Your task to perform on an android device: Clear all items from cart on target. Search for logitech g903 on target, select the first entry, add it to the cart, then select checkout. Image 0: 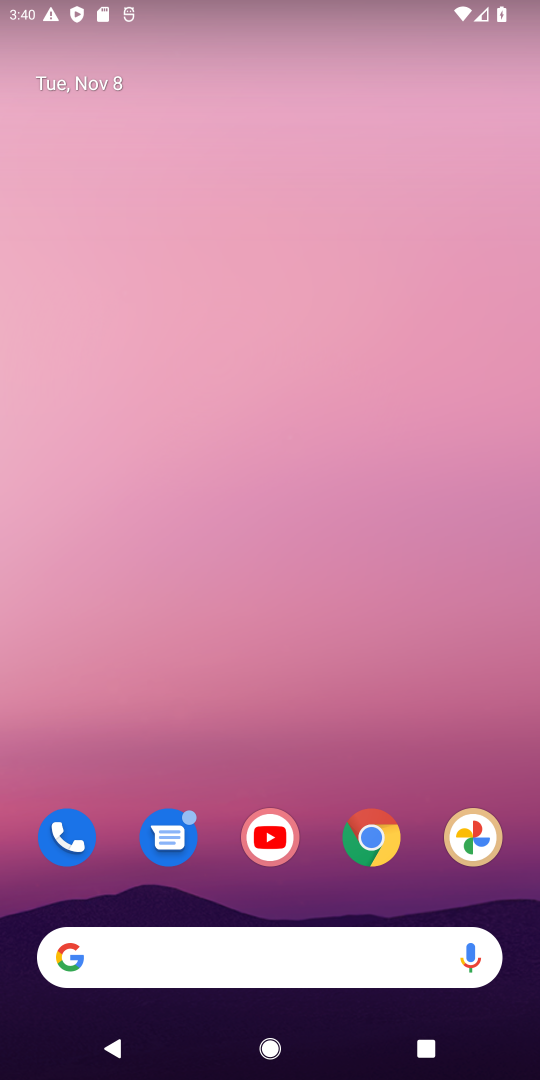
Step 0: click (387, 840)
Your task to perform on an android device: Clear all items from cart on target. Search for logitech g903 on target, select the first entry, add it to the cart, then select checkout. Image 1: 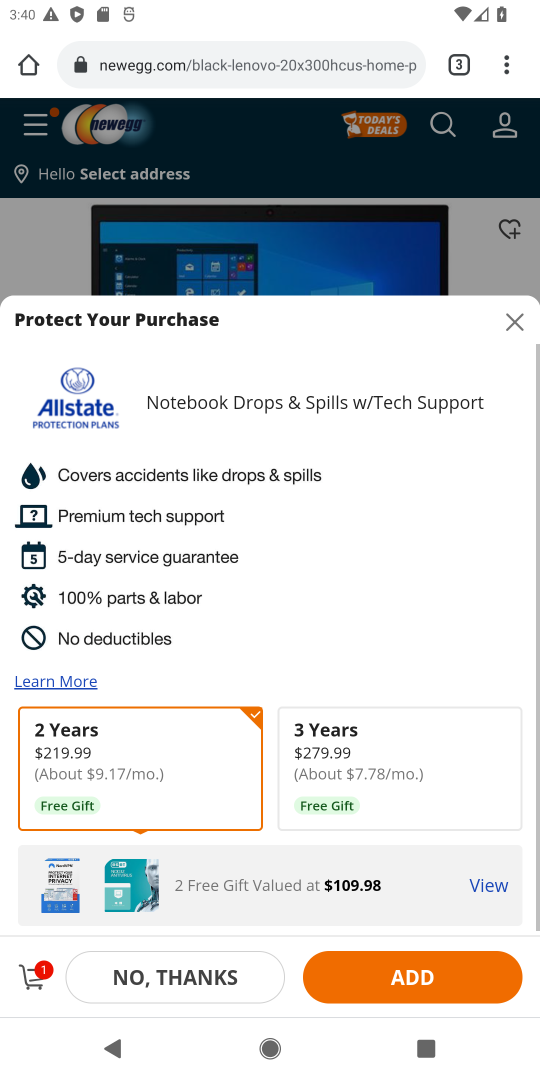
Step 1: click (461, 67)
Your task to perform on an android device: Clear all items from cart on target. Search for logitech g903 on target, select the first entry, add it to the cart, then select checkout. Image 2: 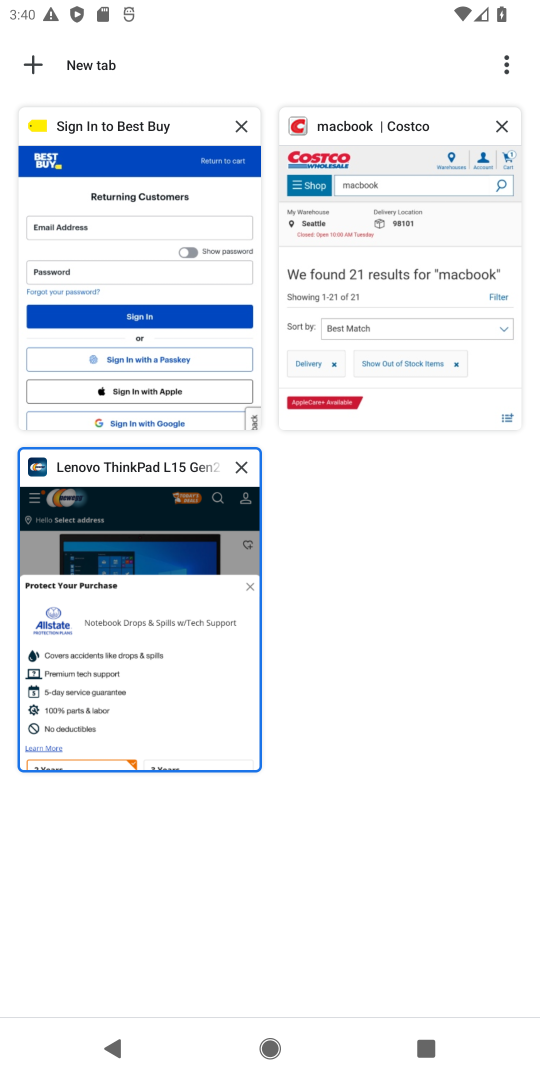
Step 2: click (19, 67)
Your task to perform on an android device: Clear all items from cart on target. Search for logitech g903 on target, select the first entry, add it to the cart, then select checkout. Image 3: 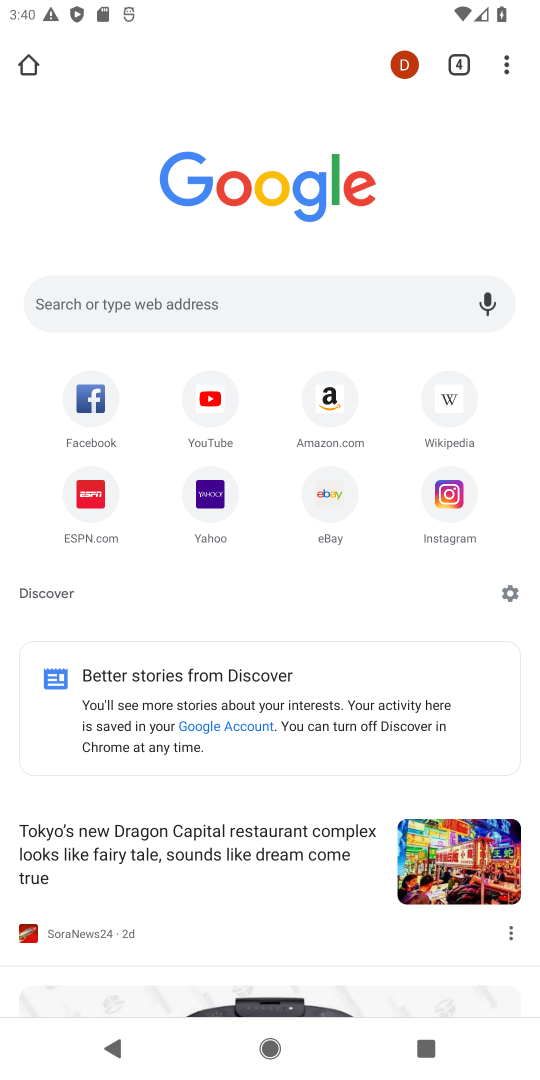
Step 3: click (149, 296)
Your task to perform on an android device: Clear all items from cart on target. Search for logitech g903 on target, select the first entry, add it to the cart, then select checkout. Image 4: 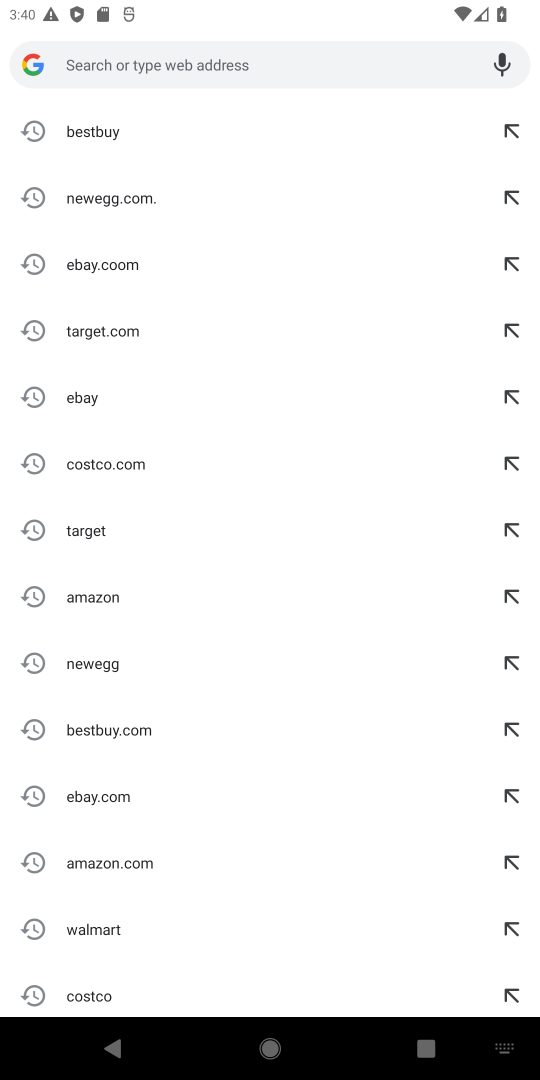
Step 4: click (110, 332)
Your task to perform on an android device: Clear all items from cart on target. Search for logitech g903 on target, select the first entry, add it to the cart, then select checkout. Image 5: 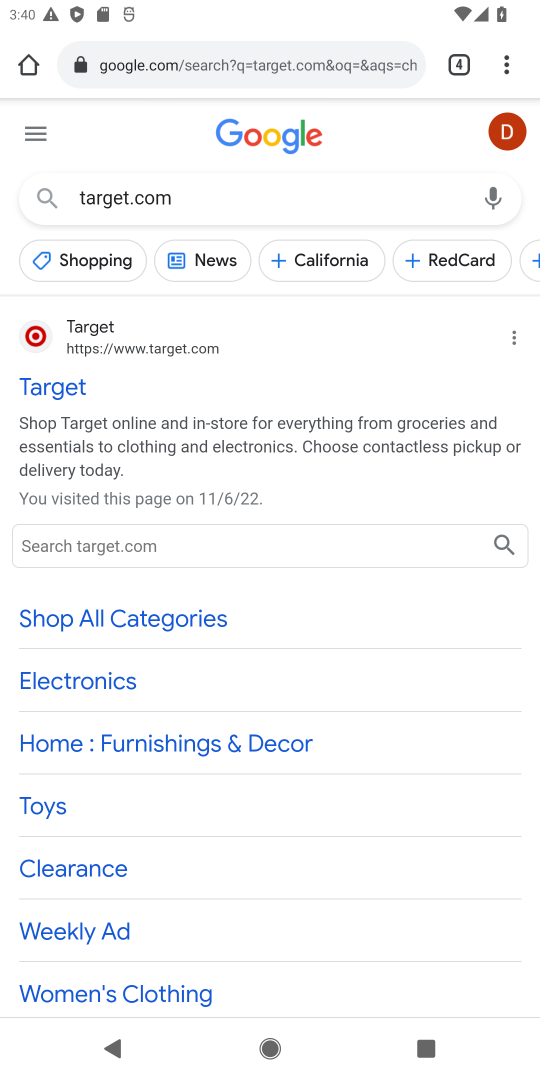
Step 5: click (76, 535)
Your task to perform on an android device: Clear all items from cart on target. Search for logitech g903 on target, select the first entry, add it to the cart, then select checkout. Image 6: 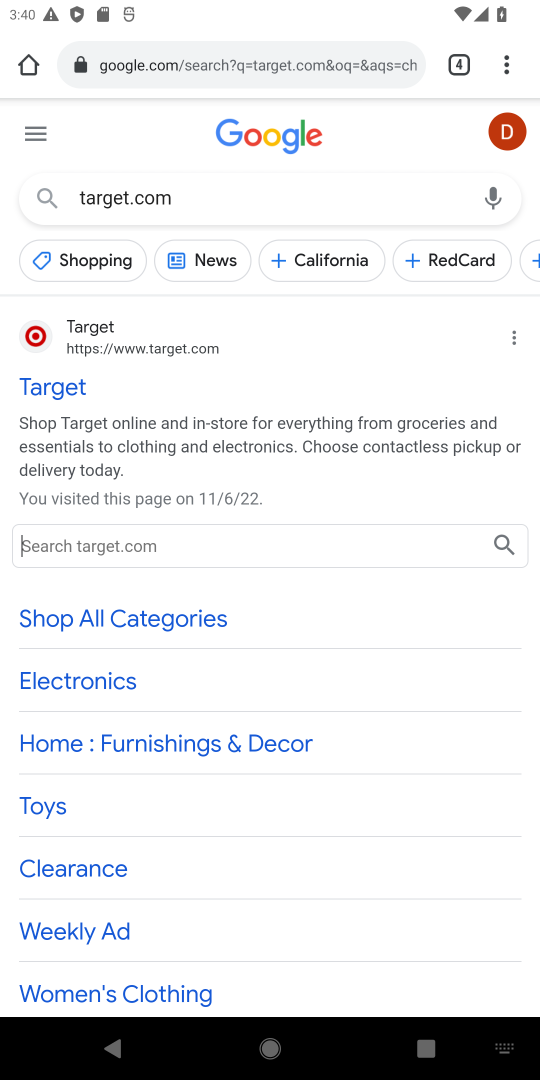
Step 6: type "logitech g903"
Your task to perform on an android device: Clear all items from cart on target. Search for logitech g903 on target, select the first entry, add it to the cart, then select checkout. Image 7: 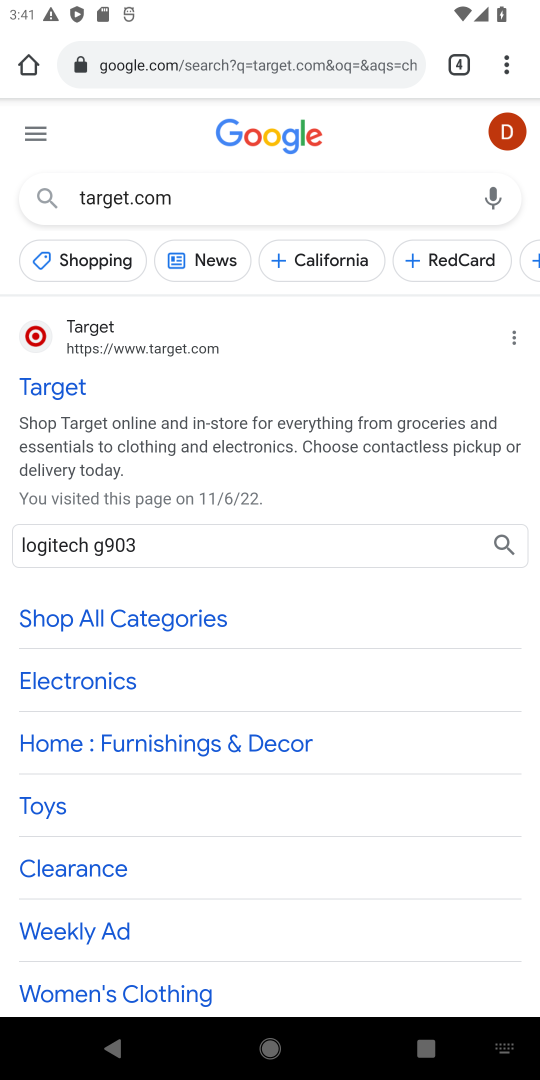
Step 7: click (498, 541)
Your task to perform on an android device: Clear all items from cart on target. Search for logitech g903 on target, select the first entry, add it to the cart, then select checkout. Image 8: 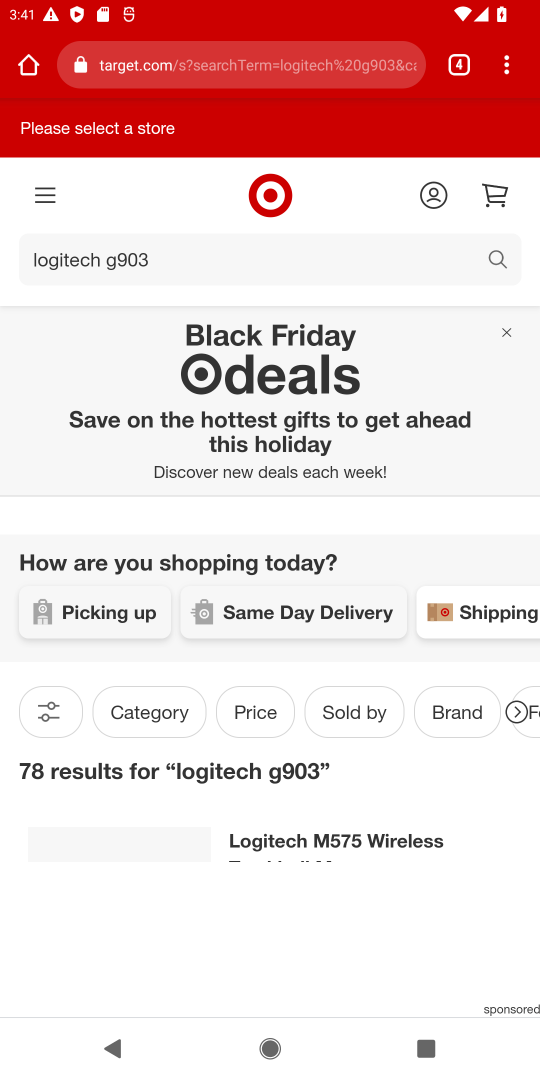
Step 8: drag from (381, 737) to (440, 383)
Your task to perform on an android device: Clear all items from cart on target. Search for logitech g903 on target, select the first entry, add it to the cart, then select checkout. Image 9: 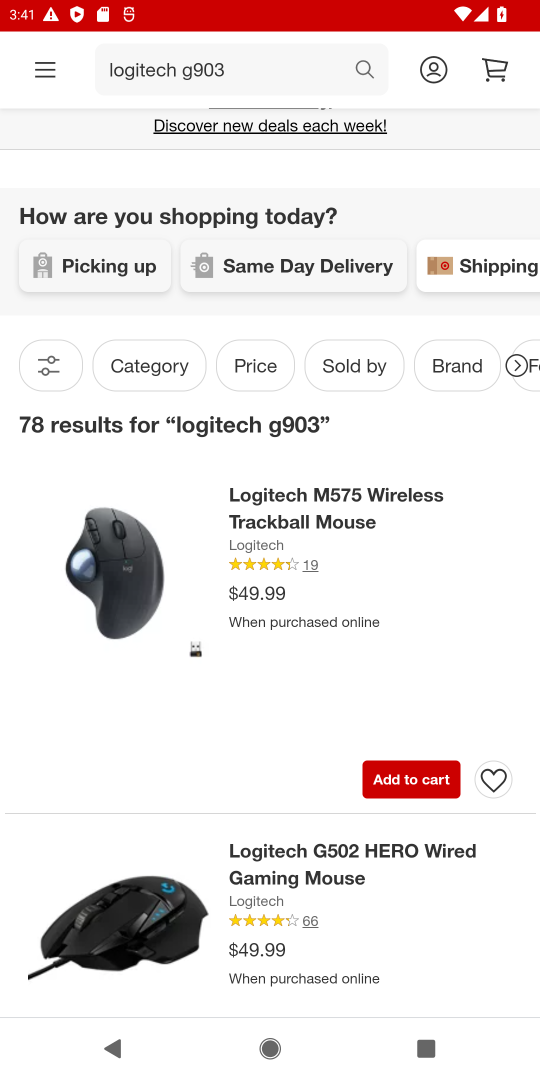
Step 9: click (419, 774)
Your task to perform on an android device: Clear all items from cart on target. Search for logitech g903 on target, select the first entry, add it to the cart, then select checkout. Image 10: 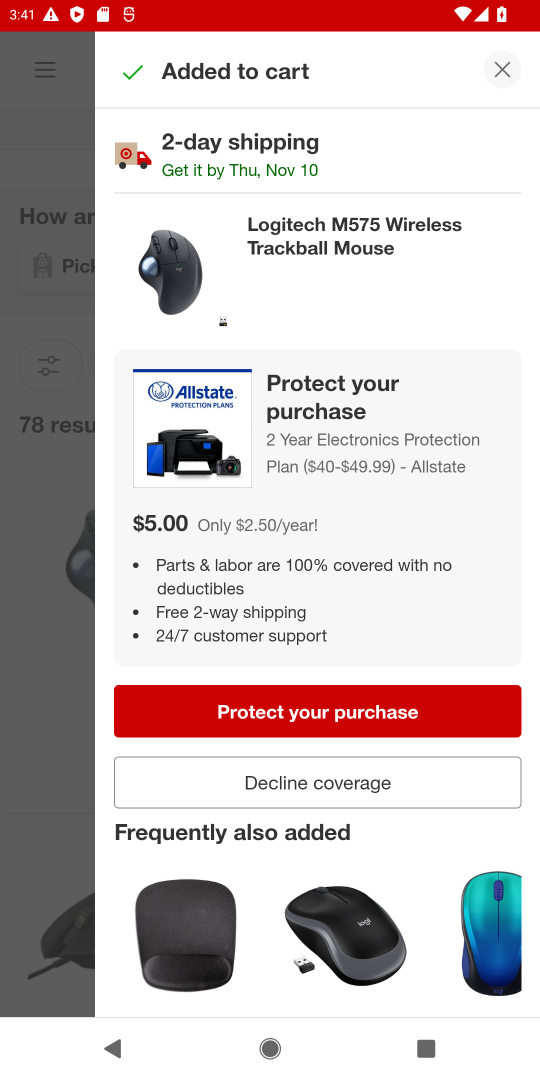
Step 10: task complete